Your task to perform on an android device: stop showing notifications on the lock screen Image 0: 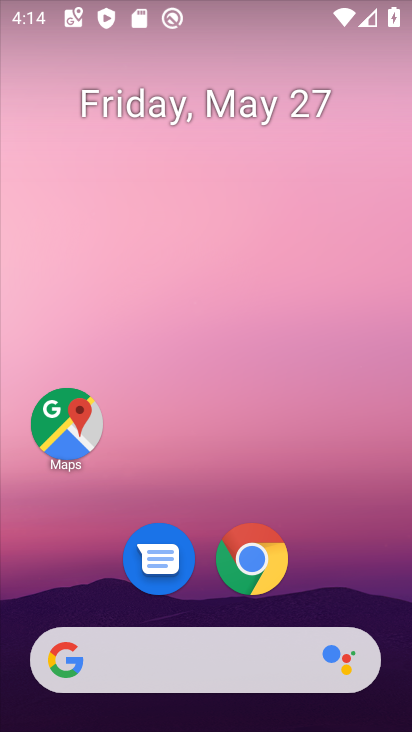
Step 0: drag from (386, 711) to (336, 287)
Your task to perform on an android device: stop showing notifications on the lock screen Image 1: 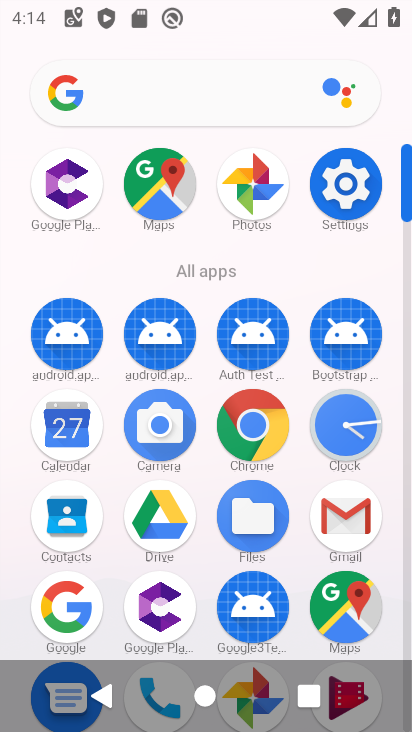
Step 1: click (353, 168)
Your task to perform on an android device: stop showing notifications on the lock screen Image 2: 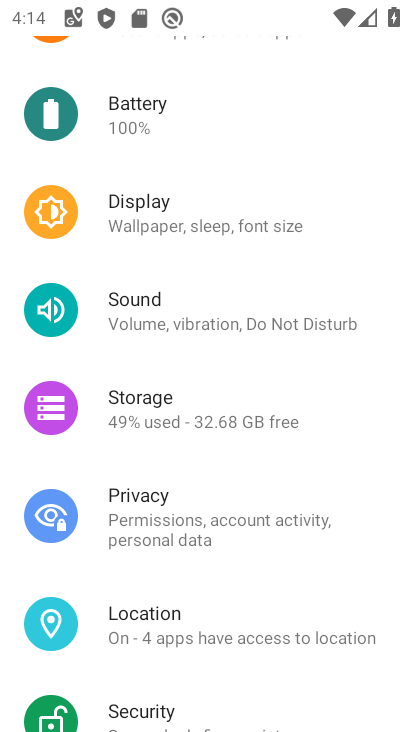
Step 2: drag from (221, 139) to (269, 548)
Your task to perform on an android device: stop showing notifications on the lock screen Image 3: 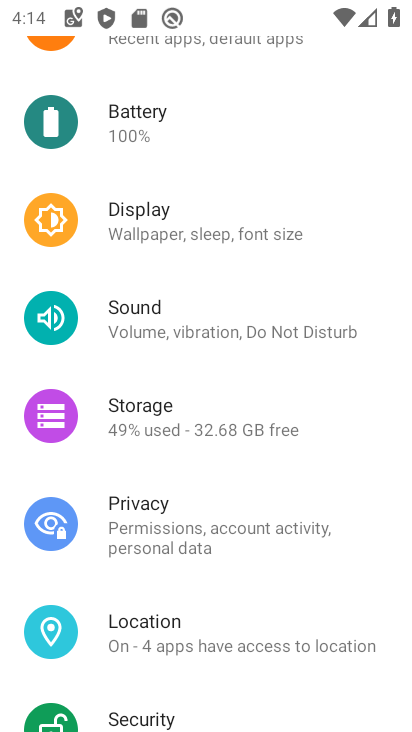
Step 3: drag from (266, 171) to (296, 552)
Your task to perform on an android device: stop showing notifications on the lock screen Image 4: 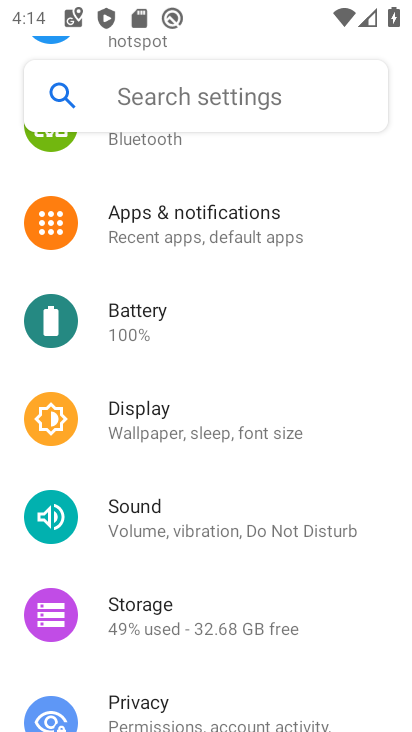
Step 4: click (172, 212)
Your task to perform on an android device: stop showing notifications on the lock screen Image 5: 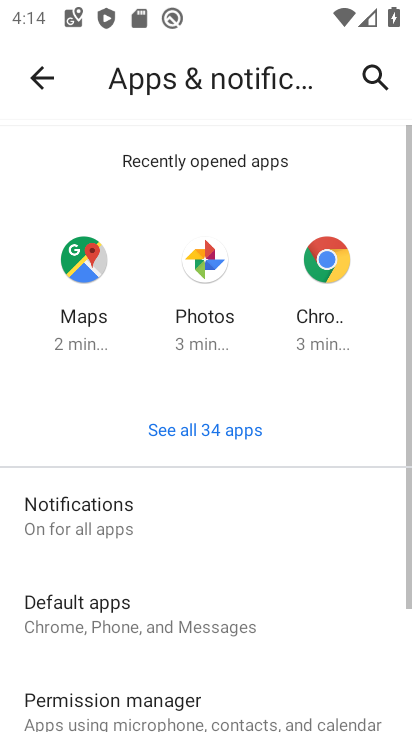
Step 5: click (105, 517)
Your task to perform on an android device: stop showing notifications on the lock screen Image 6: 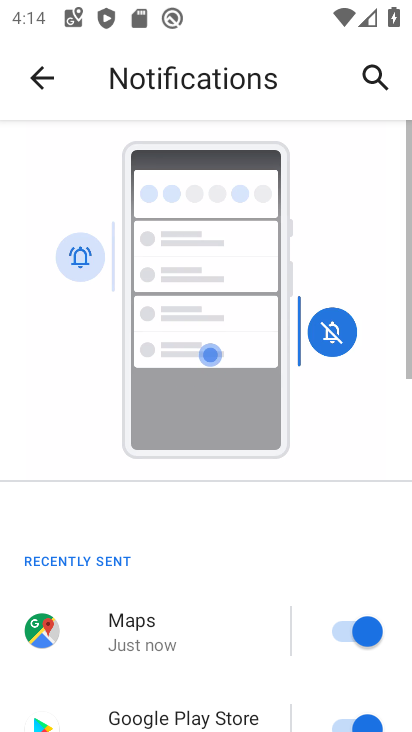
Step 6: drag from (266, 663) to (248, 295)
Your task to perform on an android device: stop showing notifications on the lock screen Image 7: 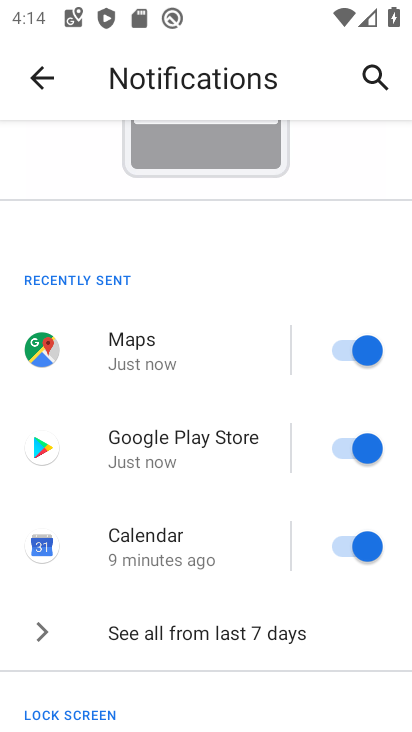
Step 7: drag from (265, 693) to (264, 230)
Your task to perform on an android device: stop showing notifications on the lock screen Image 8: 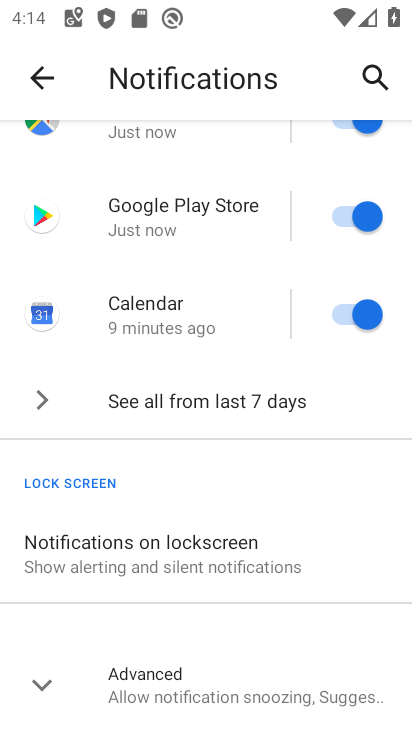
Step 8: click (83, 546)
Your task to perform on an android device: stop showing notifications on the lock screen Image 9: 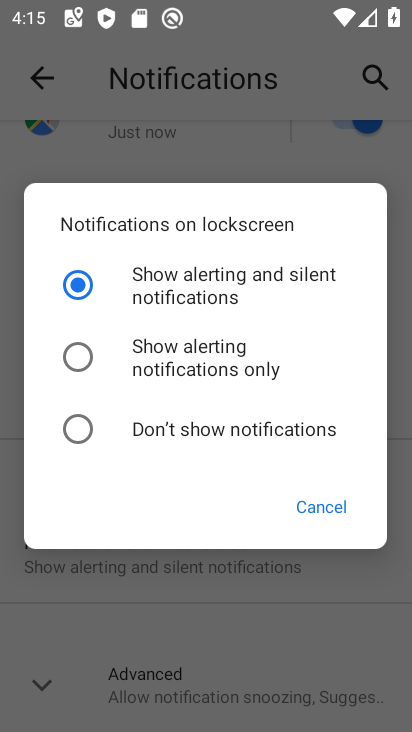
Step 9: click (70, 423)
Your task to perform on an android device: stop showing notifications on the lock screen Image 10: 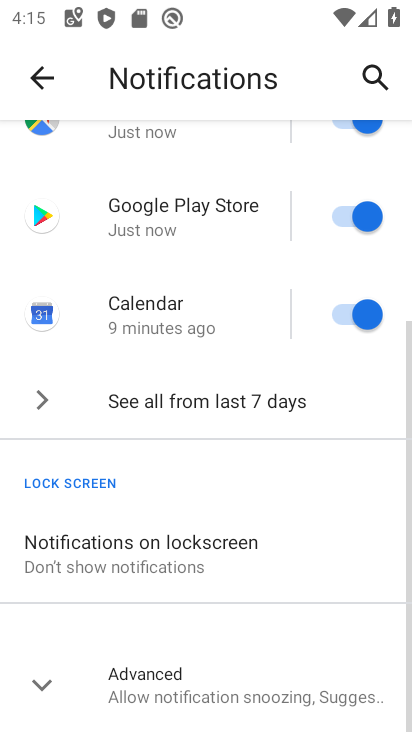
Step 10: task complete